Your task to perform on an android device: change text size in settings app Image 0: 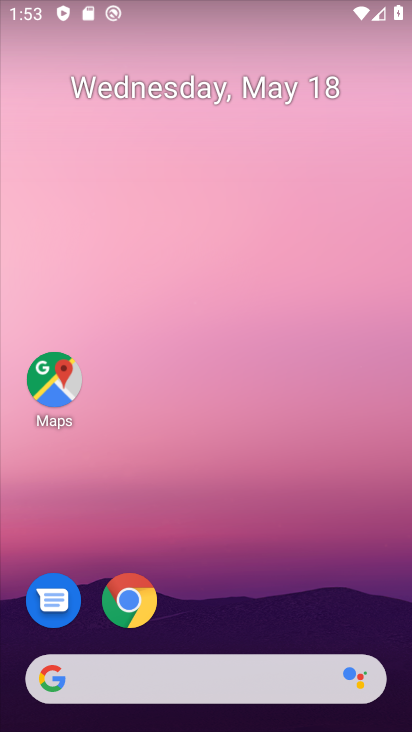
Step 0: press home button
Your task to perform on an android device: change text size in settings app Image 1: 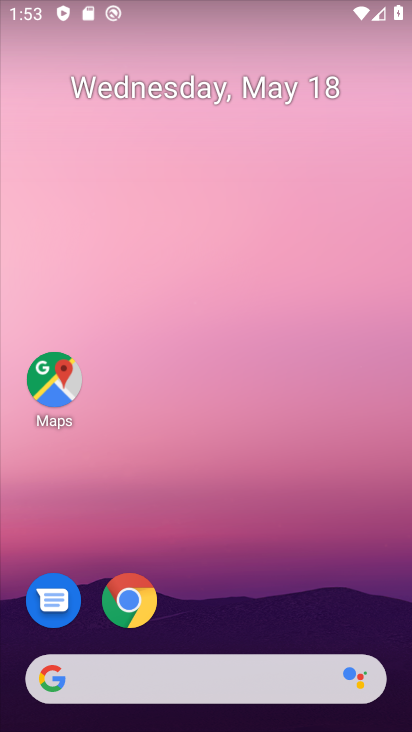
Step 1: drag from (172, 640) to (261, 118)
Your task to perform on an android device: change text size in settings app Image 2: 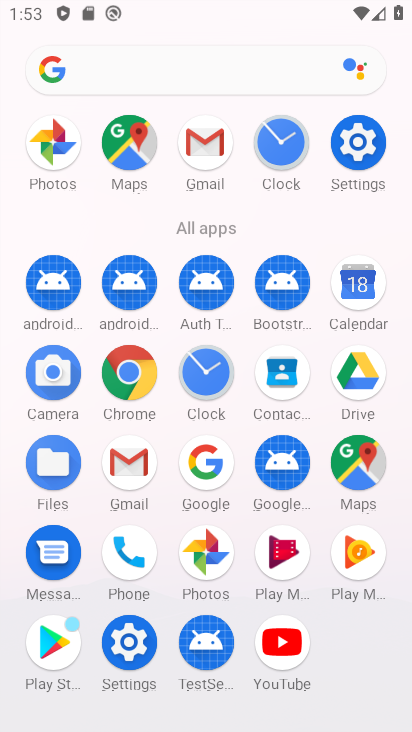
Step 2: click (359, 233)
Your task to perform on an android device: change text size in settings app Image 3: 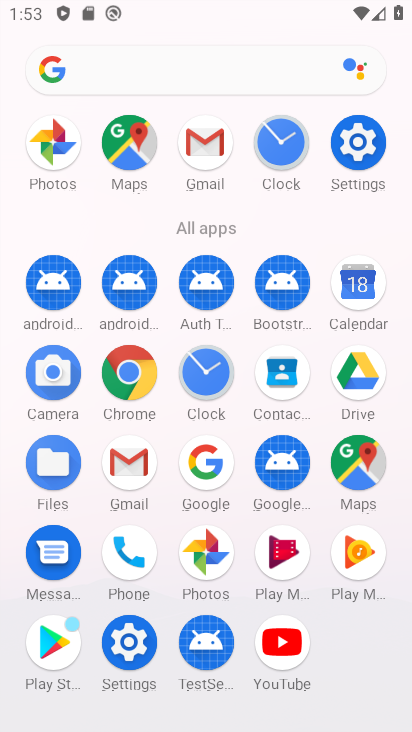
Step 3: click (364, 156)
Your task to perform on an android device: change text size in settings app Image 4: 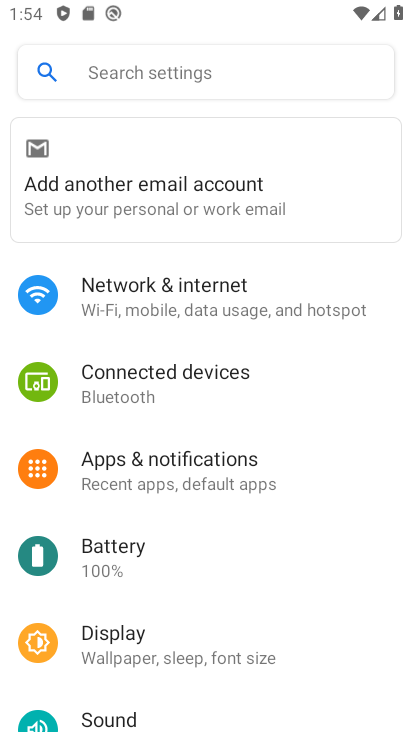
Step 4: click (192, 643)
Your task to perform on an android device: change text size in settings app Image 5: 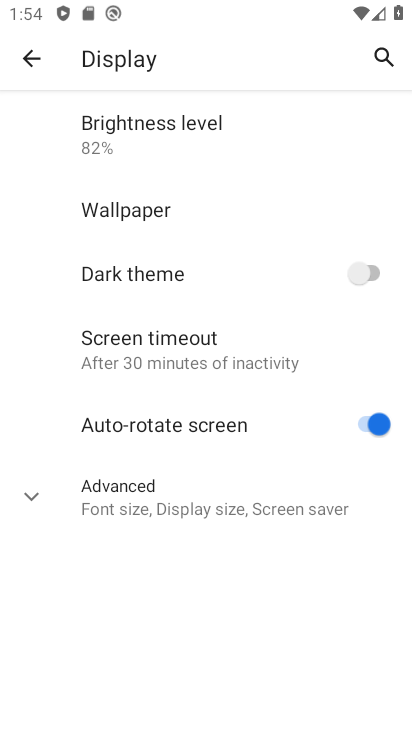
Step 5: click (188, 505)
Your task to perform on an android device: change text size in settings app Image 6: 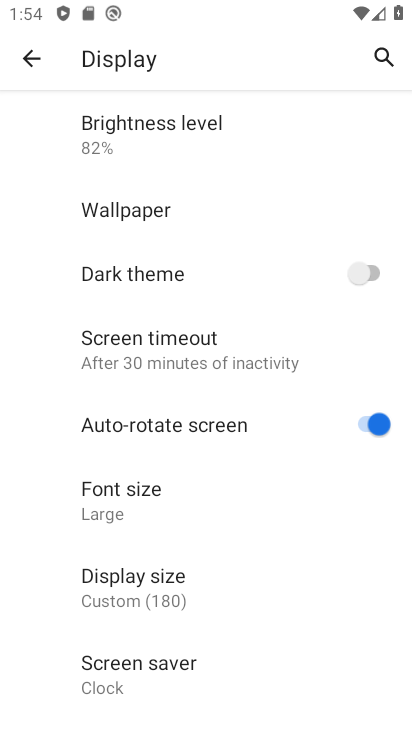
Step 6: click (113, 500)
Your task to perform on an android device: change text size in settings app Image 7: 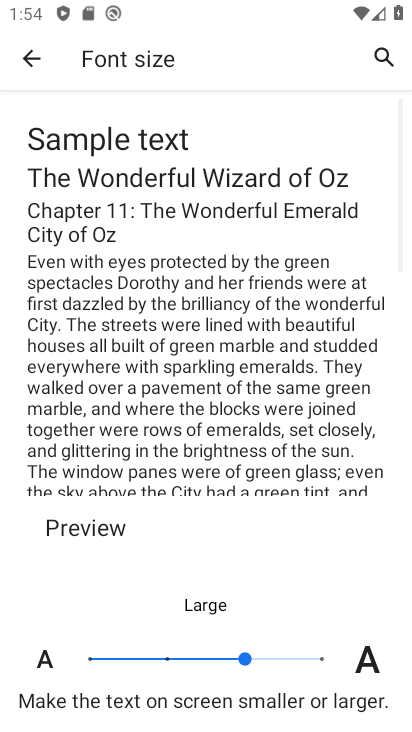
Step 7: click (165, 655)
Your task to perform on an android device: change text size in settings app Image 8: 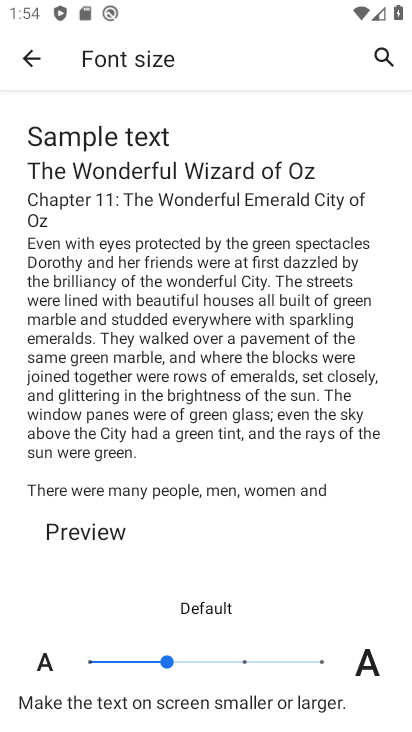
Step 8: task complete